Your task to perform on an android device: Show me popular games on the Play Store Image 0: 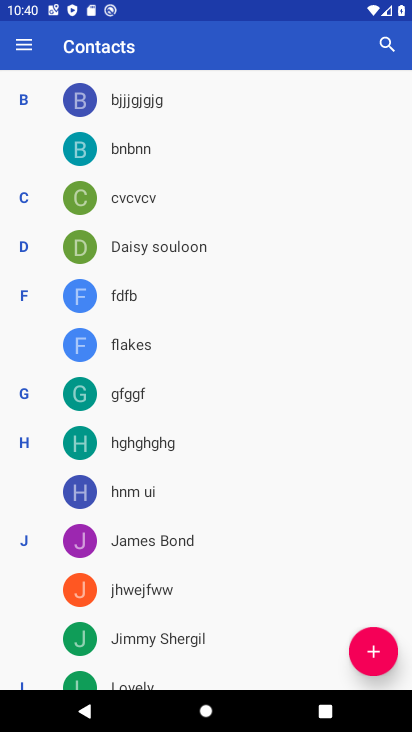
Step 0: press home button
Your task to perform on an android device: Show me popular games on the Play Store Image 1: 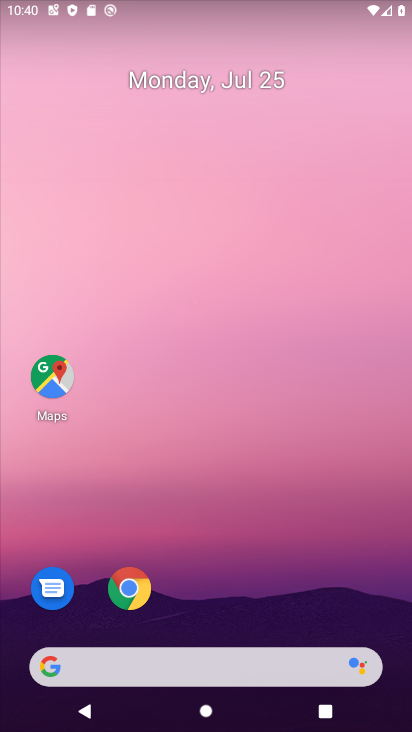
Step 1: drag from (252, 575) to (264, 89)
Your task to perform on an android device: Show me popular games on the Play Store Image 2: 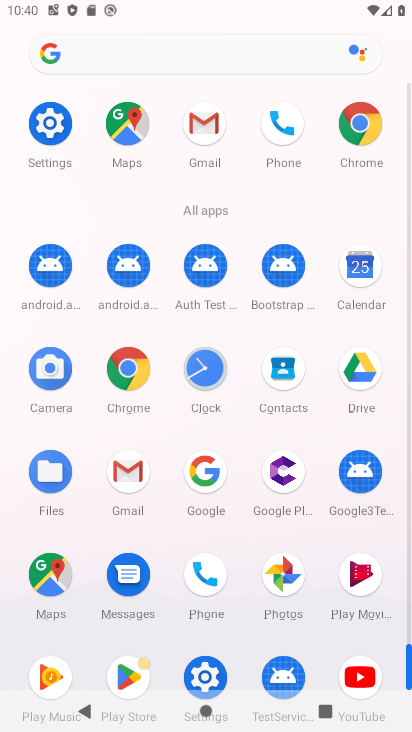
Step 2: click (119, 667)
Your task to perform on an android device: Show me popular games on the Play Store Image 3: 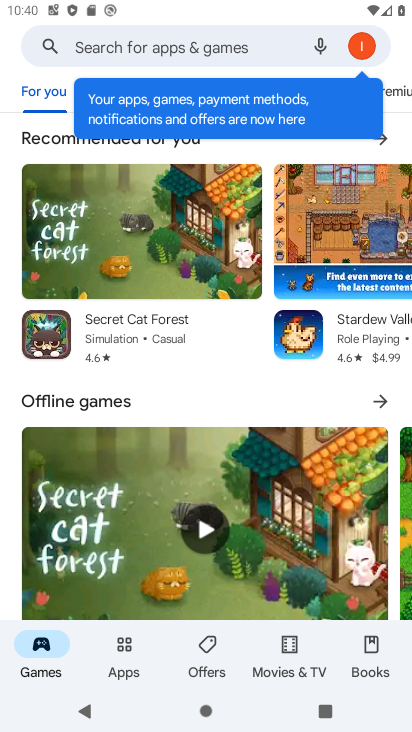
Step 3: drag from (191, 519) to (187, 413)
Your task to perform on an android device: Show me popular games on the Play Store Image 4: 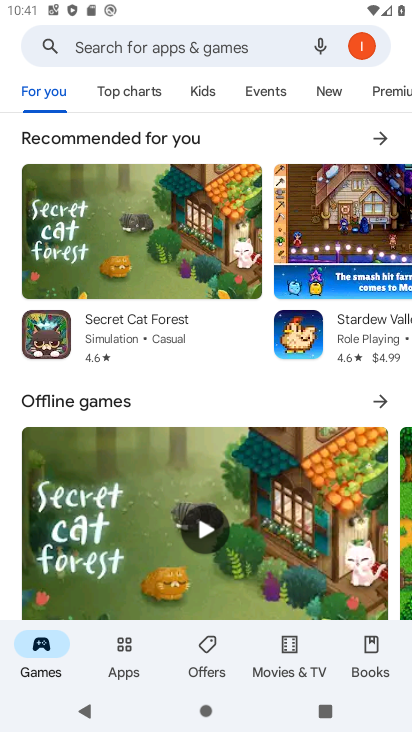
Step 4: click (144, 85)
Your task to perform on an android device: Show me popular games on the Play Store Image 5: 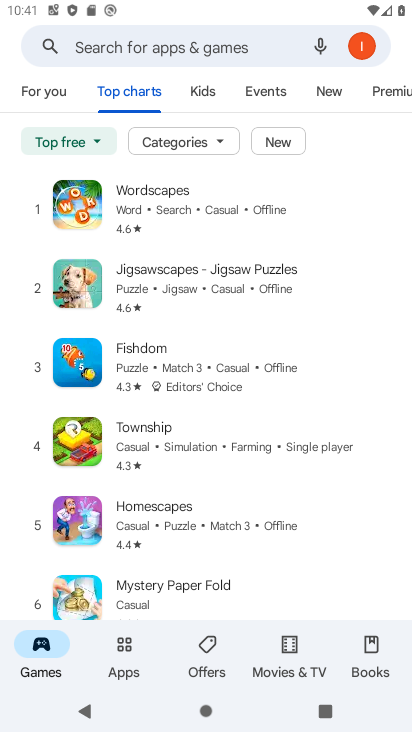
Step 5: task complete